Your task to perform on an android device: star an email in the gmail app Image 0: 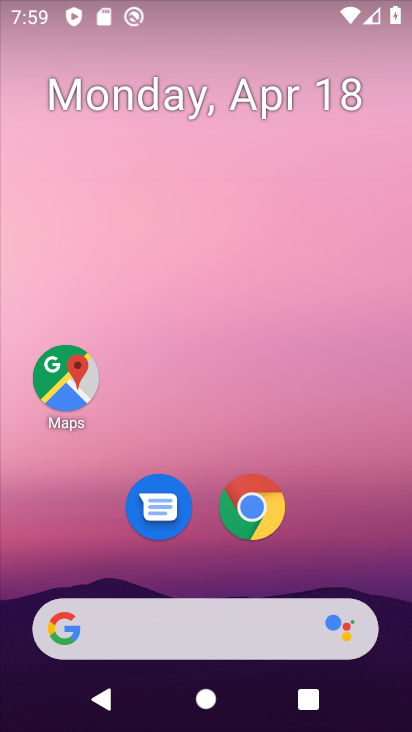
Step 0: drag from (334, 562) to (291, 34)
Your task to perform on an android device: star an email in the gmail app Image 1: 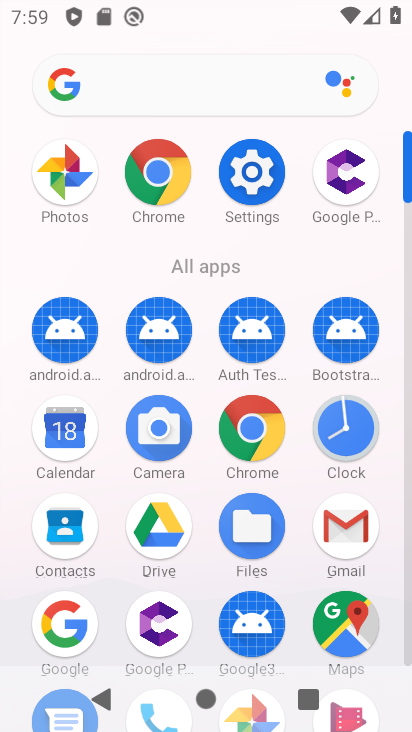
Step 1: click (346, 527)
Your task to perform on an android device: star an email in the gmail app Image 2: 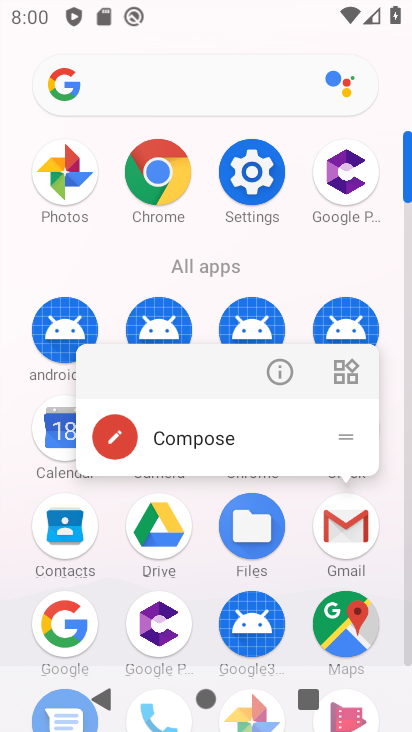
Step 2: click (346, 517)
Your task to perform on an android device: star an email in the gmail app Image 3: 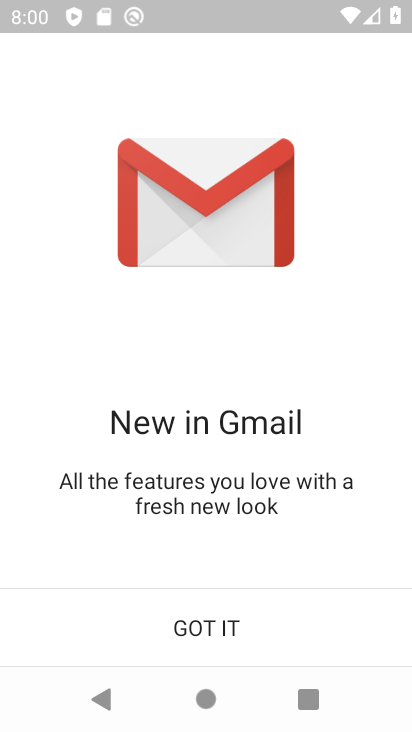
Step 3: click (235, 619)
Your task to perform on an android device: star an email in the gmail app Image 4: 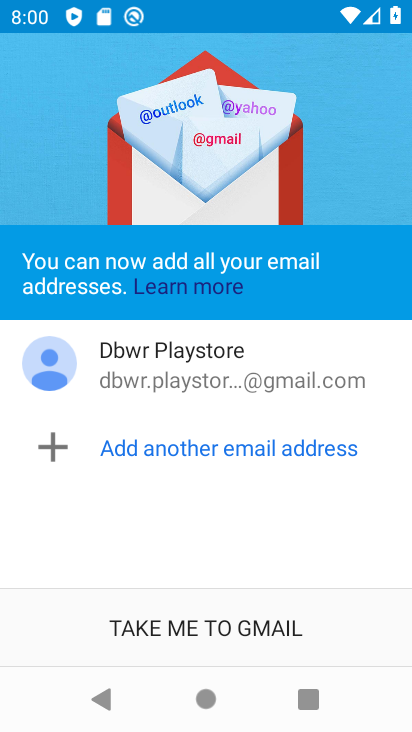
Step 4: click (242, 616)
Your task to perform on an android device: star an email in the gmail app Image 5: 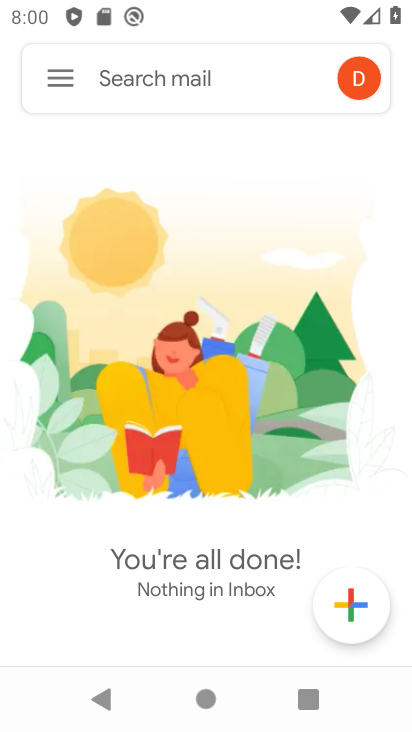
Step 5: click (58, 77)
Your task to perform on an android device: star an email in the gmail app Image 6: 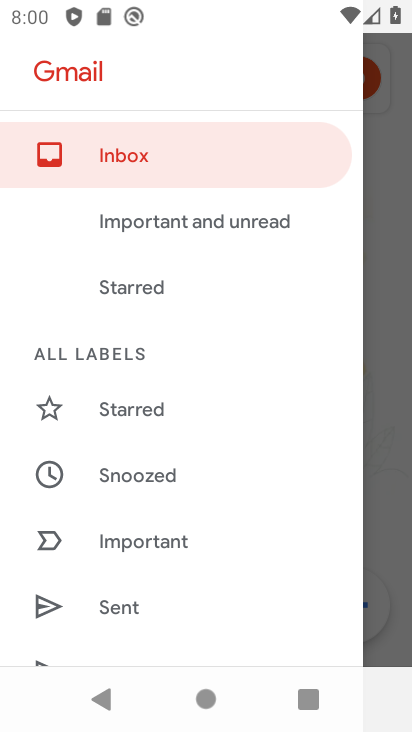
Step 6: drag from (138, 522) to (136, 106)
Your task to perform on an android device: star an email in the gmail app Image 7: 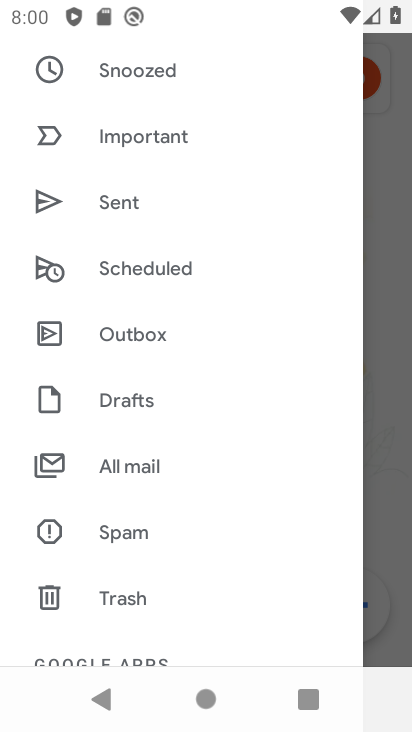
Step 7: click (151, 476)
Your task to perform on an android device: star an email in the gmail app Image 8: 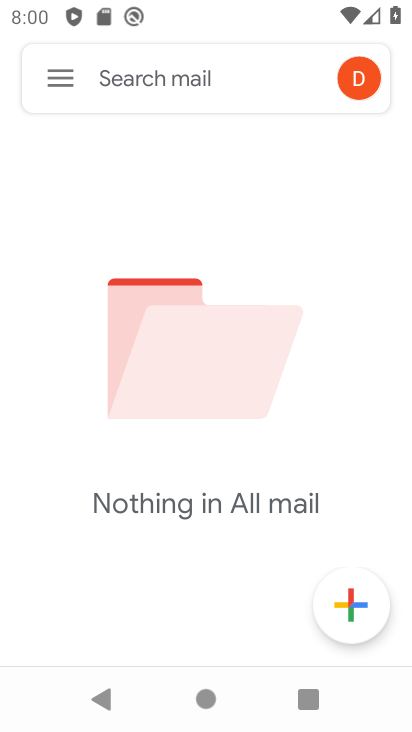
Step 8: task complete